Your task to perform on an android device: remove spam from my inbox in the gmail app Image 0: 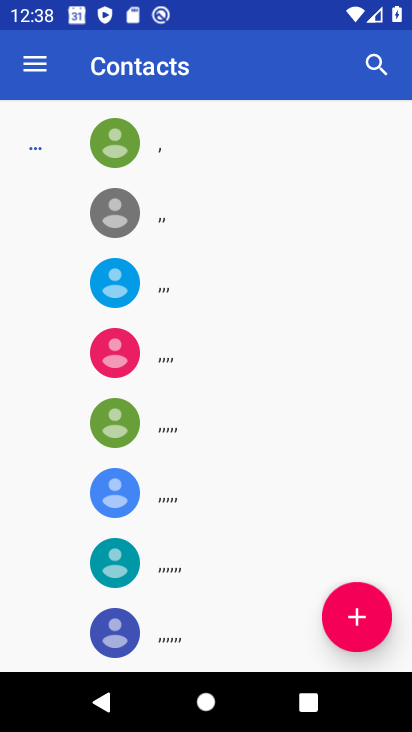
Step 0: press home button
Your task to perform on an android device: remove spam from my inbox in the gmail app Image 1: 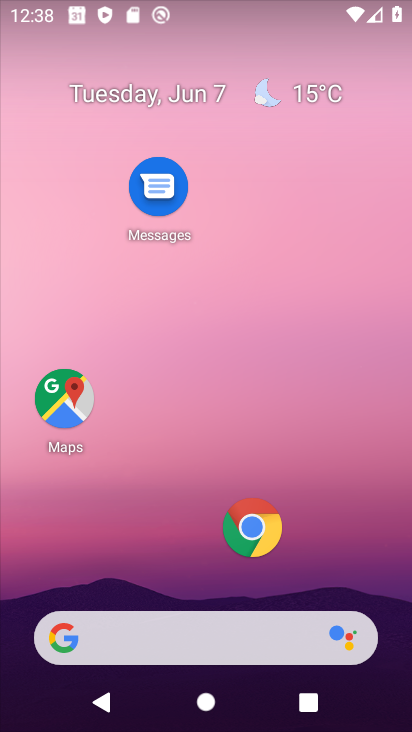
Step 1: drag from (229, 620) to (217, 179)
Your task to perform on an android device: remove spam from my inbox in the gmail app Image 2: 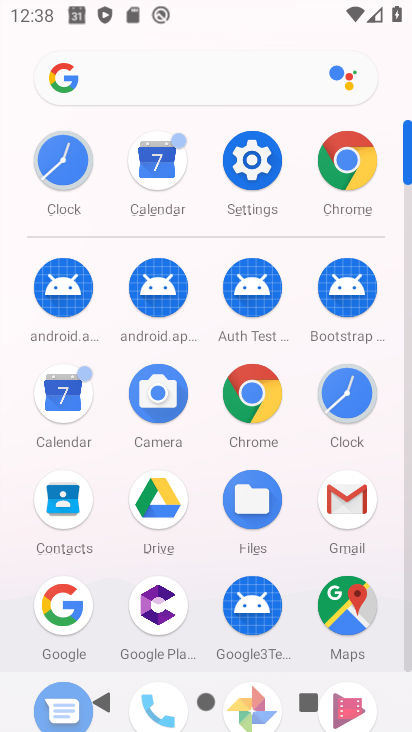
Step 2: click (341, 502)
Your task to perform on an android device: remove spam from my inbox in the gmail app Image 3: 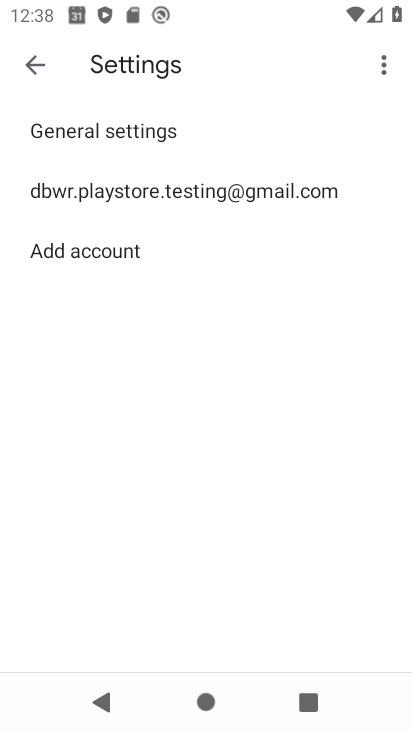
Step 3: click (32, 65)
Your task to perform on an android device: remove spam from my inbox in the gmail app Image 4: 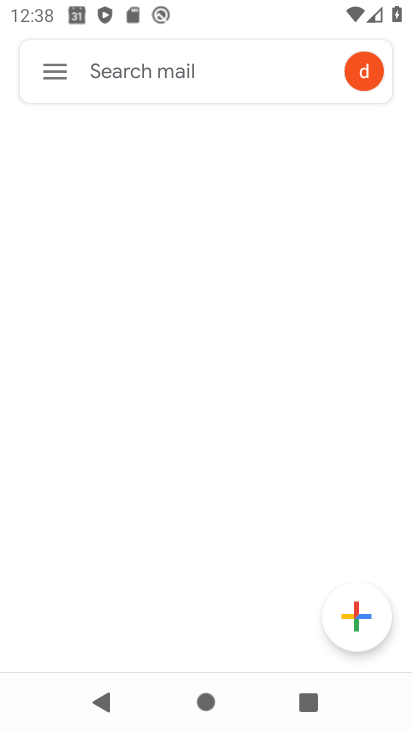
Step 4: click (70, 72)
Your task to perform on an android device: remove spam from my inbox in the gmail app Image 5: 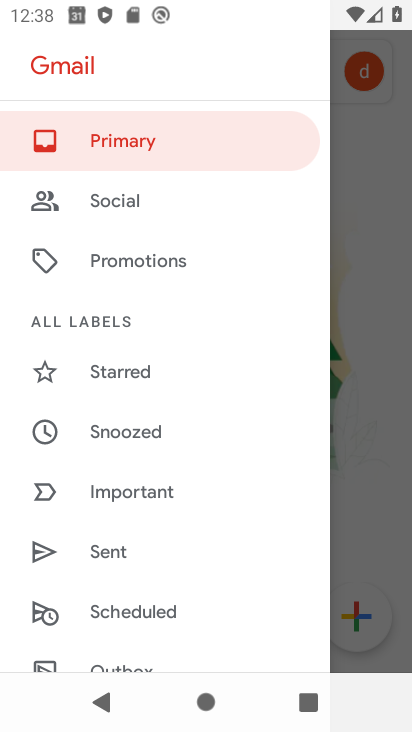
Step 5: drag from (114, 659) to (148, 287)
Your task to perform on an android device: remove spam from my inbox in the gmail app Image 6: 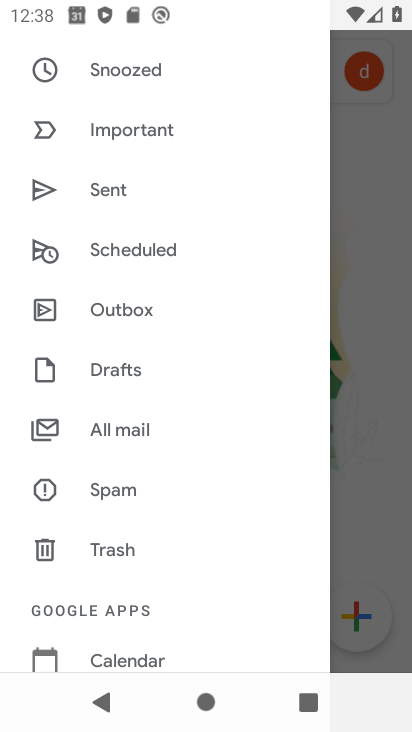
Step 6: click (130, 489)
Your task to perform on an android device: remove spam from my inbox in the gmail app Image 7: 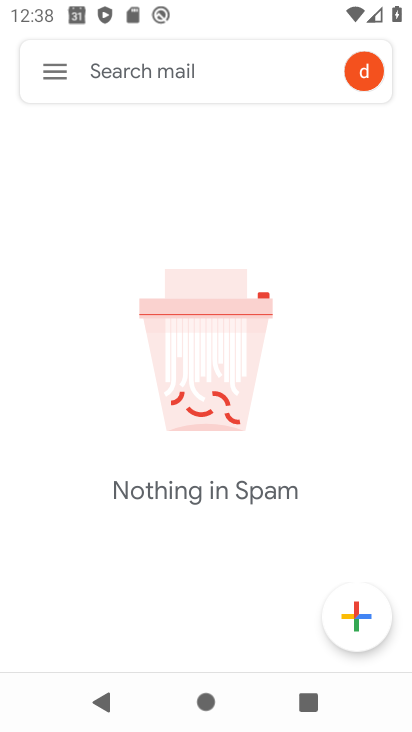
Step 7: task complete